Your task to perform on an android device: find photos in the google photos app Image 0: 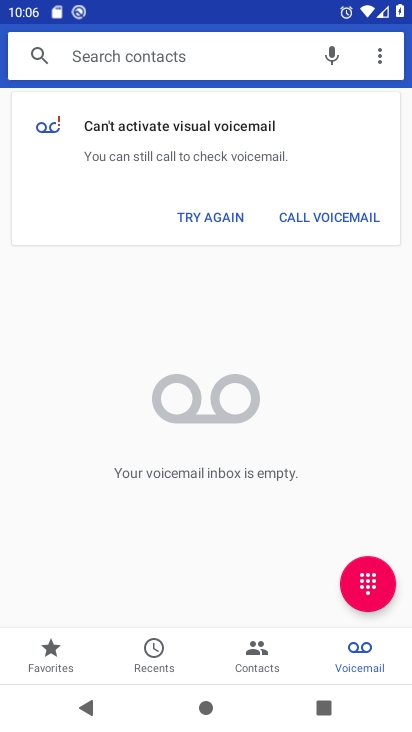
Step 0: press home button
Your task to perform on an android device: find photos in the google photos app Image 1: 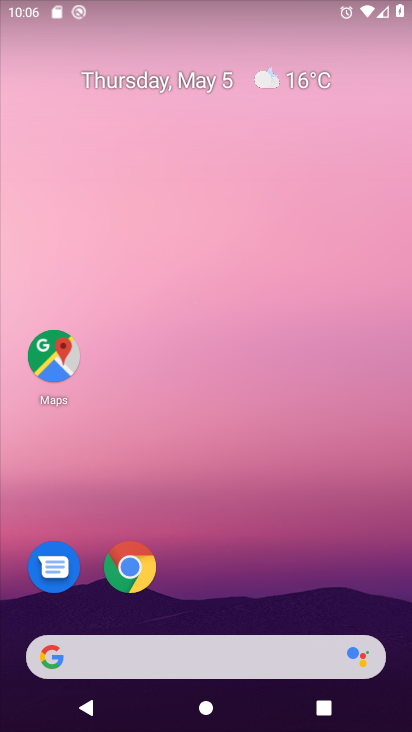
Step 1: drag from (280, 571) to (249, 48)
Your task to perform on an android device: find photos in the google photos app Image 2: 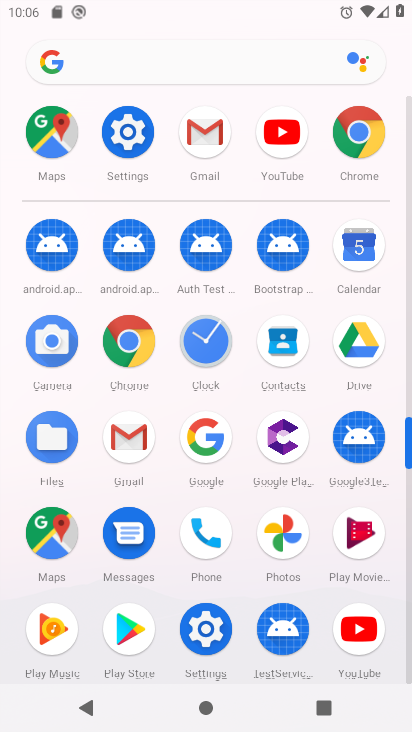
Step 2: click (288, 523)
Your task to perform on an android device: find photos in the google photos app Image 3: 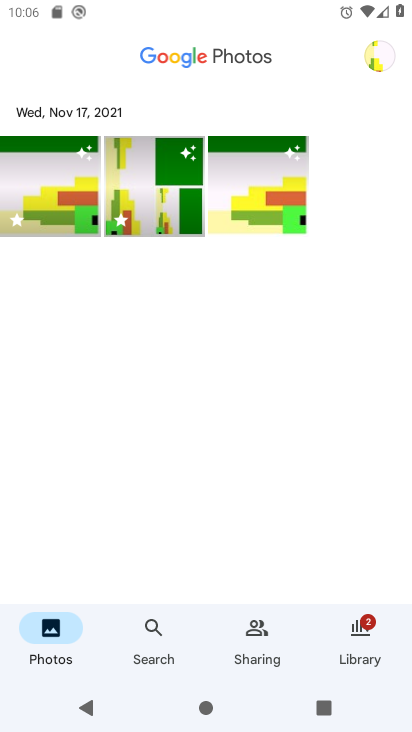
Step 3: task complete